Your task to perform on an android device: uninstall "Gboard" Image 0: 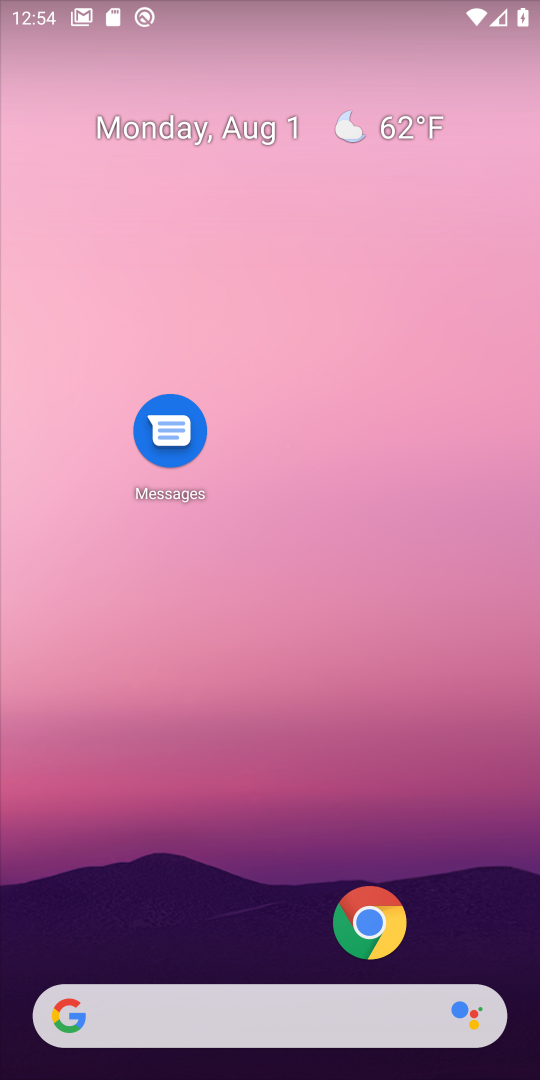
Step 0: drag from (247, 957) to (258, 386)
Your task to perform on an android device: uninstall "Gboard" Image 1: 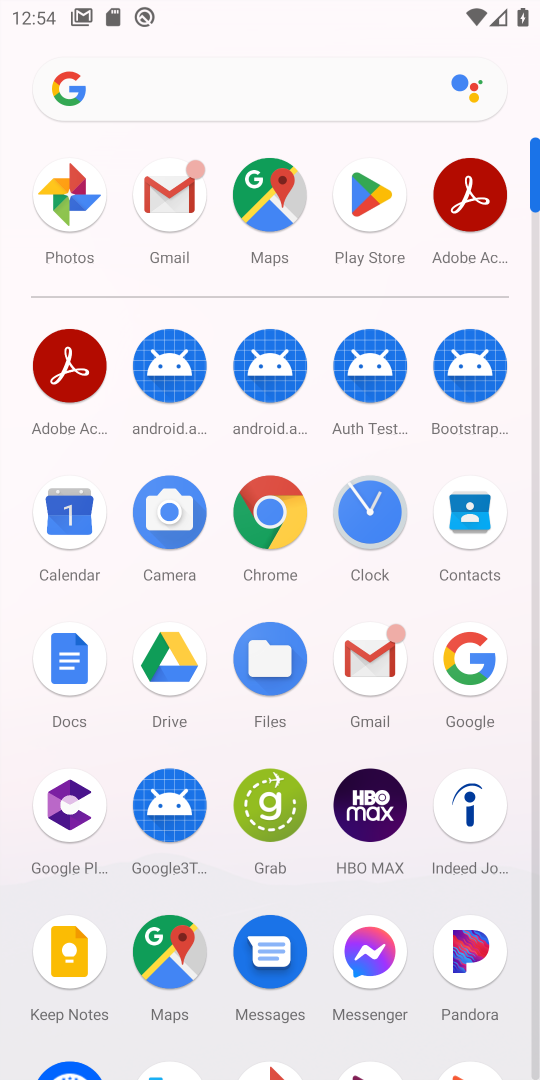
Step 1: click (372, 176)
Your task to perform on an android device: uninstall "Gboard" Image 2: 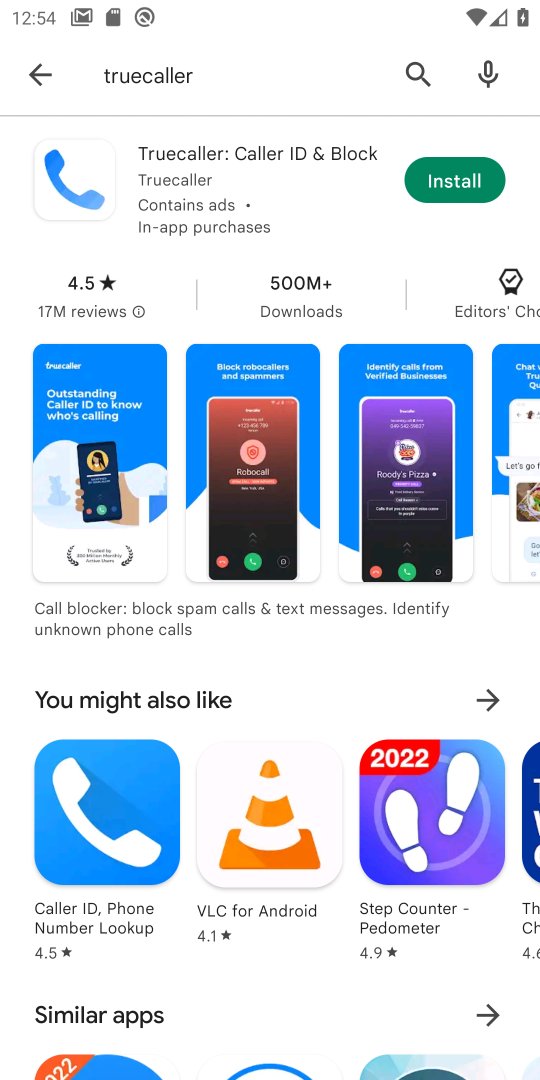
Step 2: click (432, 81)
Your task to perform on an android device: uninstall "Gboard" Image 3: 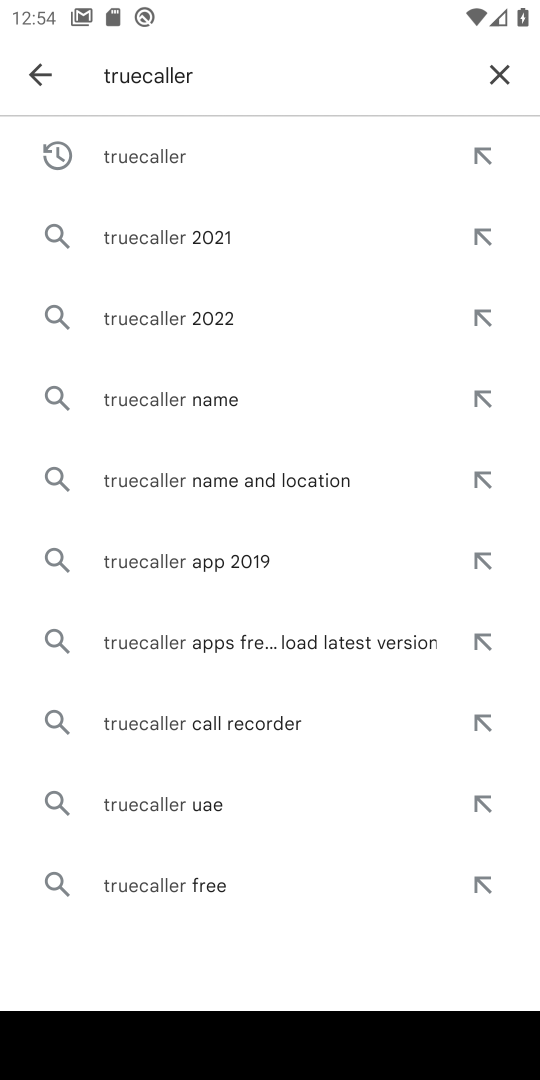
Step 3: click (493, 71)
Your task to perform on an android device: uninstall "Gboard" Image 4: 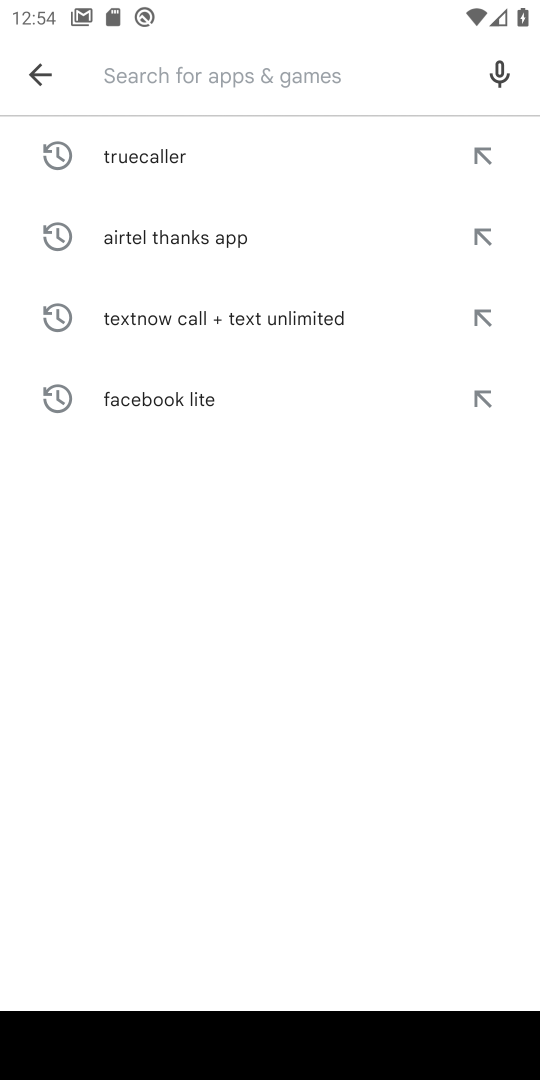
Step 4: type "Gboard"
Your task to perform on an android device: uninstall "Gboard" Image 5: 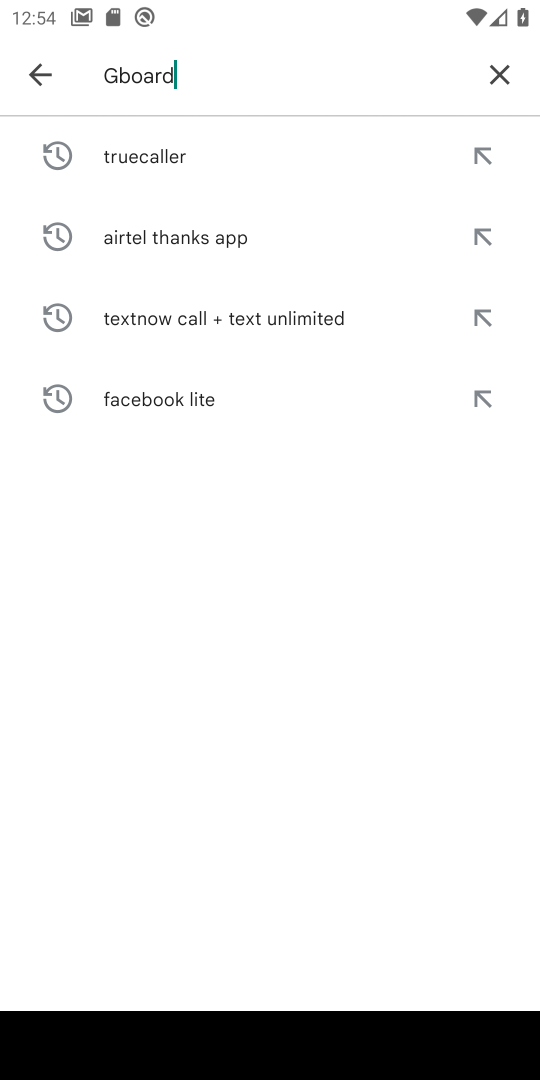
Step 5: type ""
Your task to perform on an android device: uninstall "Gboard" Image 6: 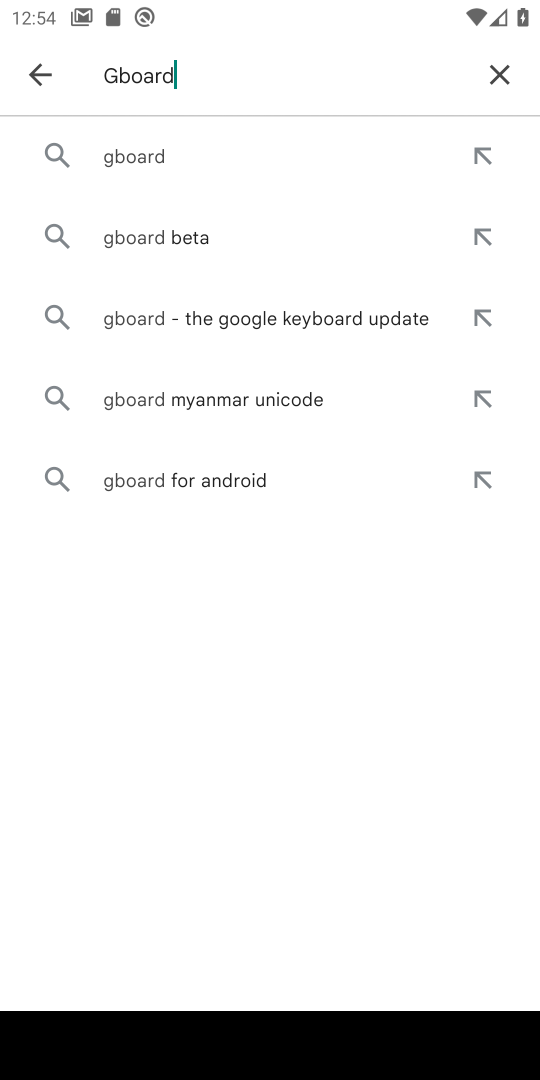
Step 6: click (192, 144)
Your task to perform on an android device: uninstall "Gboard" Image 7: 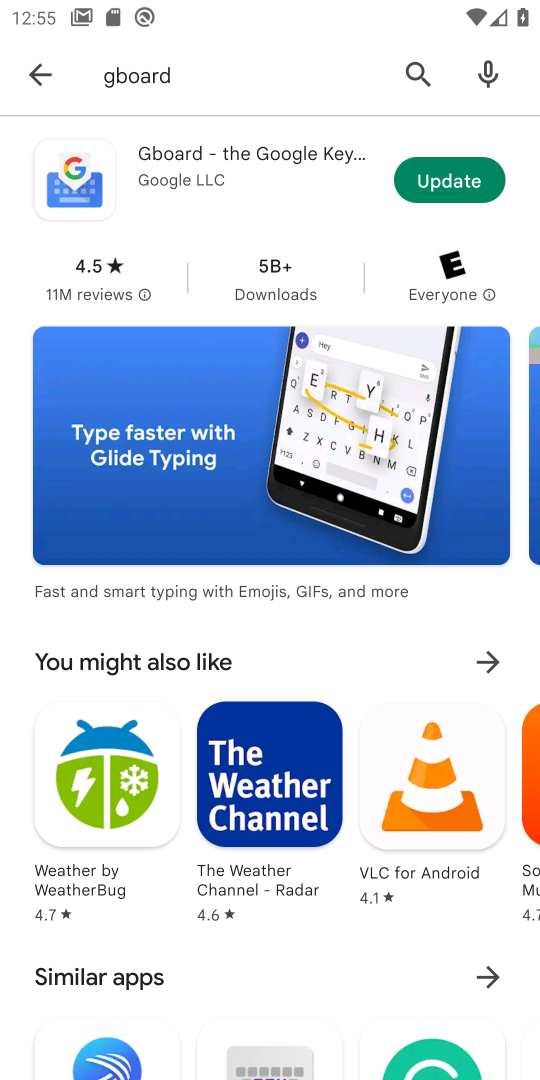
Step 7: click (285, 186)
Your task to perform on an android device: uninstall "Gboard" Image 8: 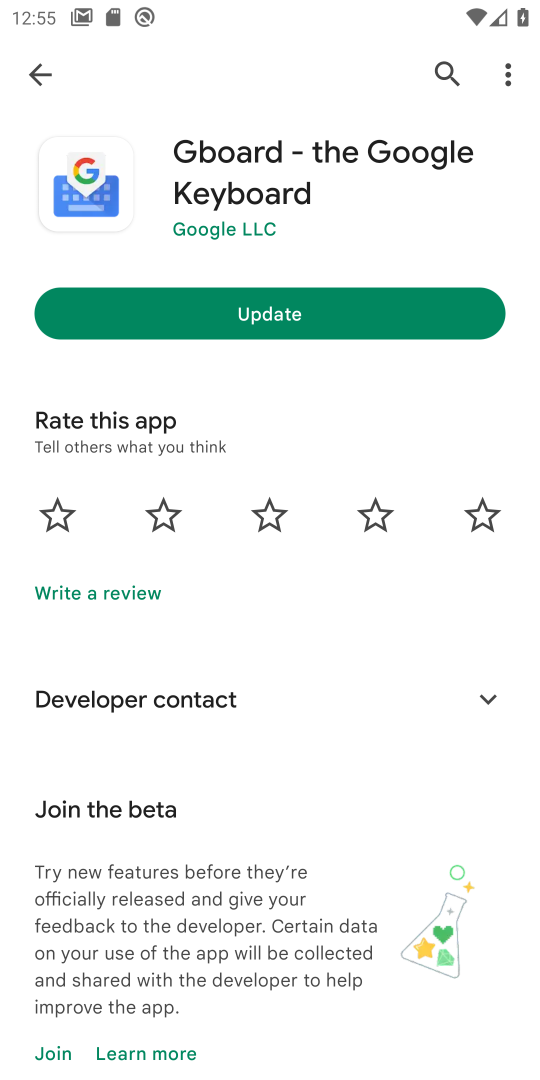
Step 8: click (151, 314)
Your task to perform on an android device: uninstall "Gboard" Image 9: 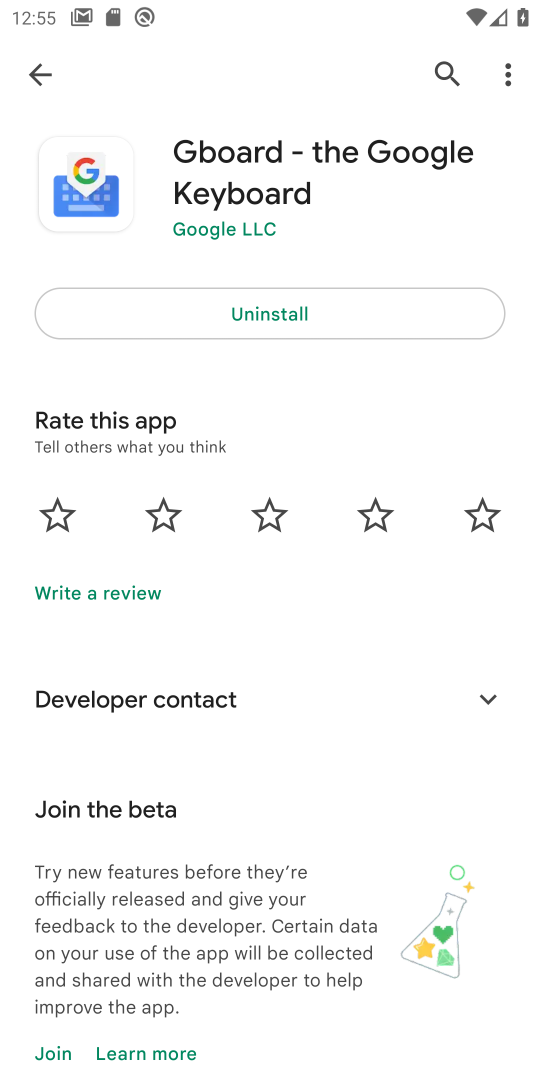
Step 9: click (151, 314)
Your task to perform on an android device: uninstall "Gboard" Image 10: 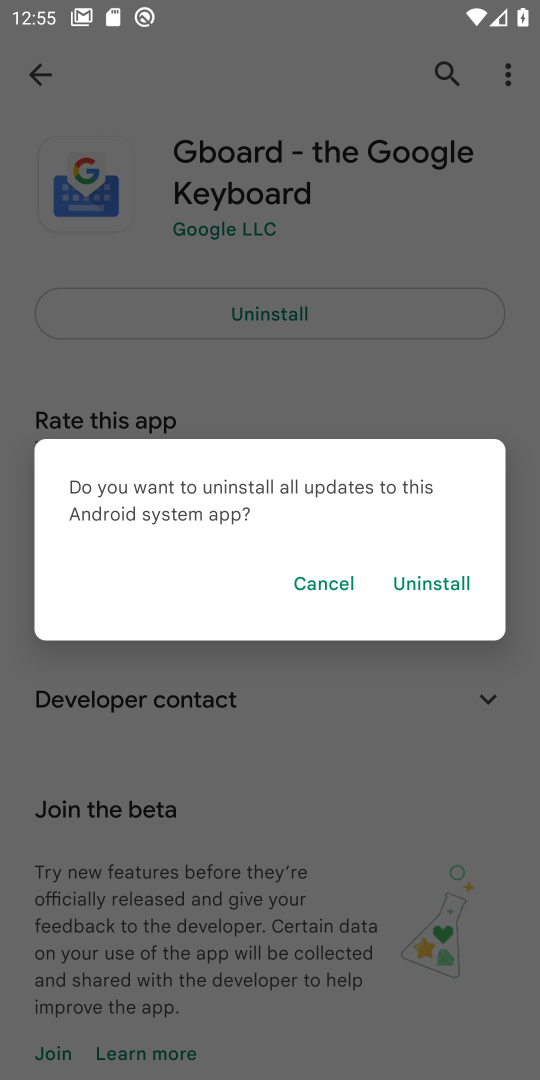
Step 10: click (443, 573)
Your task to perform on an android device: uninstall "Gboard" Image 11: 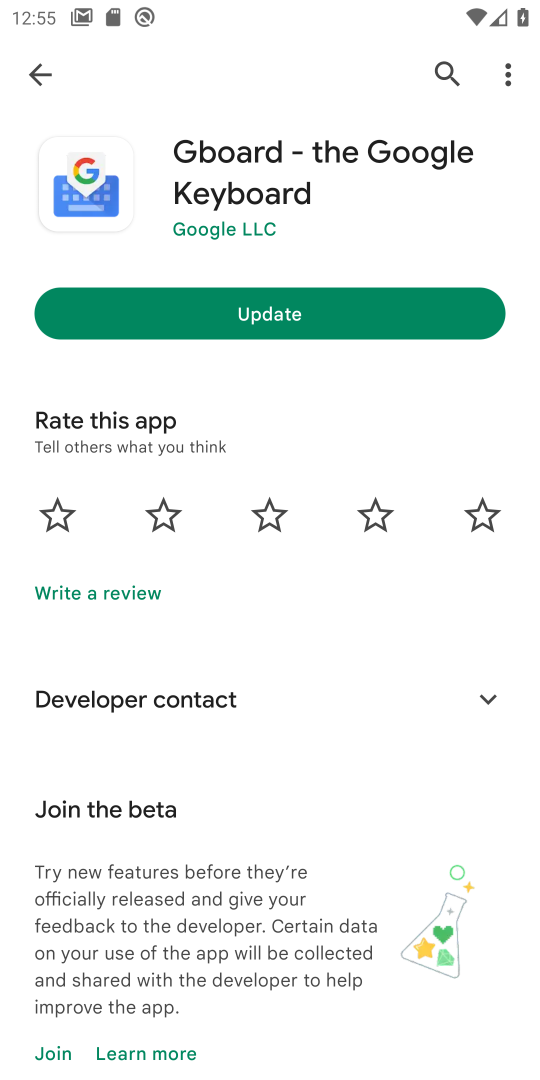
Step 11: task complete